Your task to perform on an android device: set default search engine in the chrome app Image 0: 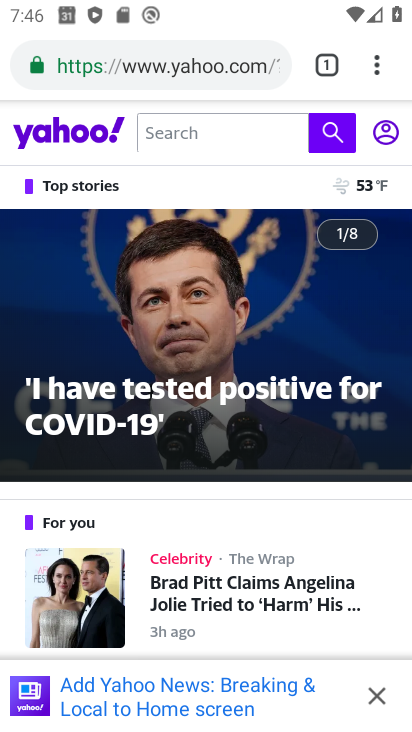
Step 0: click (377, 58)
Your task to perform on an android device: set default search engine in the chrome app Image 1: 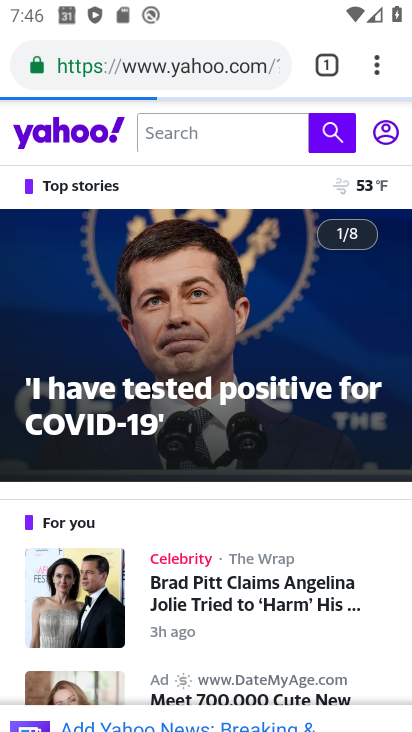
Step 1: click (376, 71)
Your task to perform on an android device: set default search engine in the chrome app Image 2: 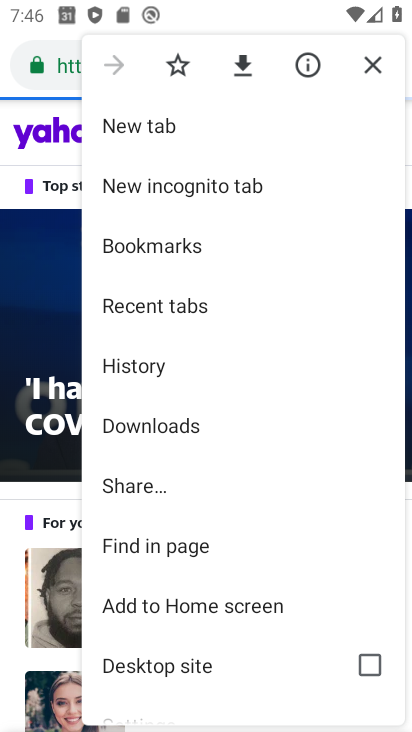
Step 2: drag from (152, 650) to (174, 268)
Your task to perform on an android device: set default search engine in the chrome app Image 3: 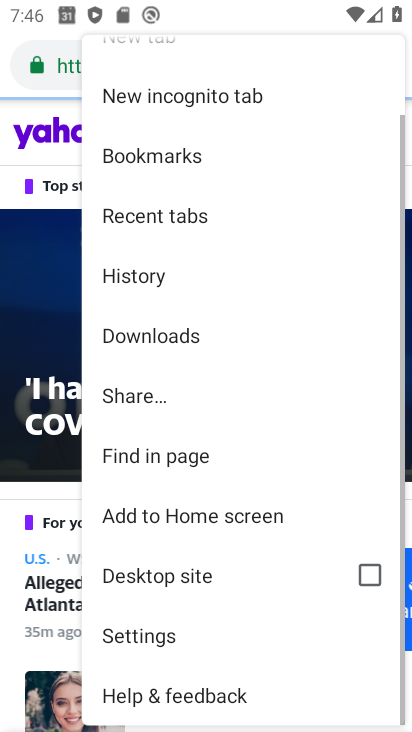
Step 3: click (163, 629)
Your task to perform on an android device: set default search engine in the chrome app Image 4: 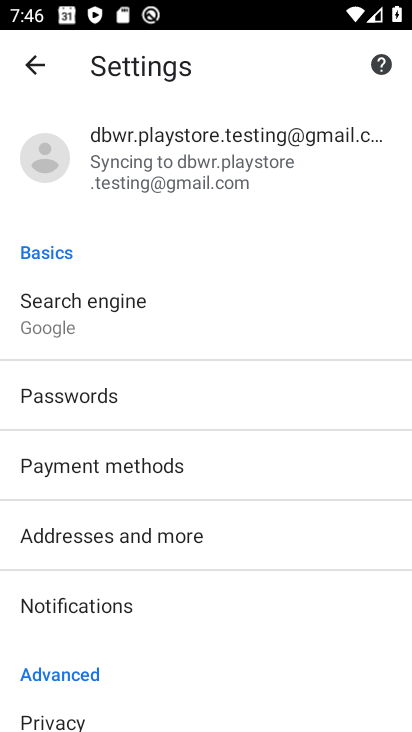
Step 4: click (117, 328)
Your task to perform on an android device: set default search engine in the chrome app Image 5: 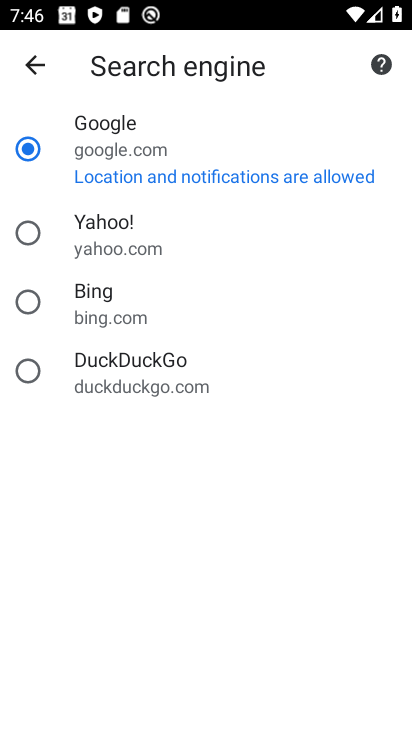
Step 5: task complete